Your task to perform on an android device: Open Reddit.com Image 0: 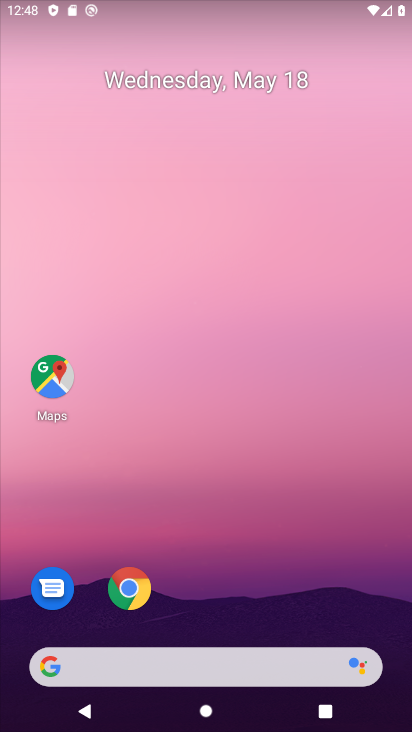
Step 0: drag from (363, 575) to (366, 114)
Your task to perform on an android device: Open Reddit.com Image 1: 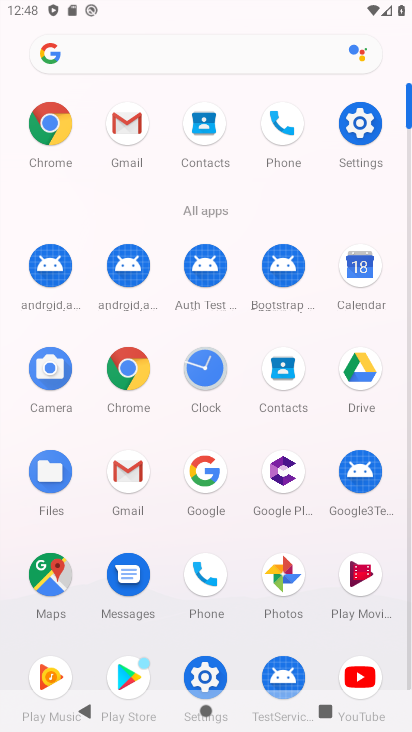
Step 1: click (118, 381)
Your task to perform on an android device: Open Reddit.com Image 2: 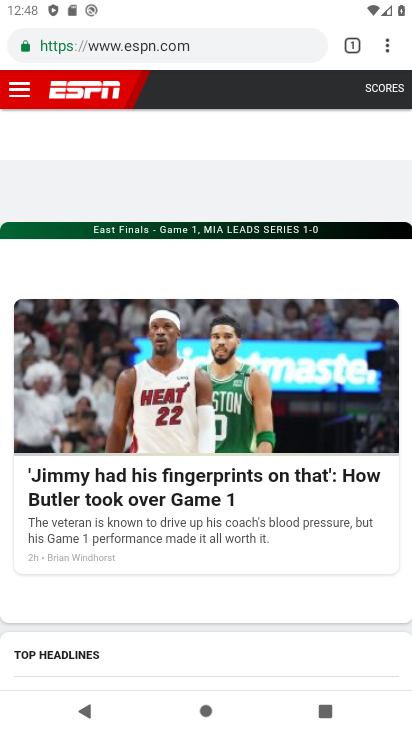
Step 2: press back button
Your task to perform on an android device: Open Reddit.com Image 3: 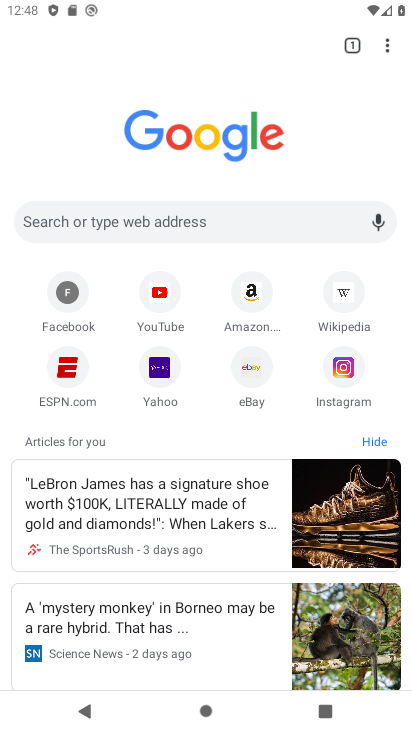
Step 3: click (233, 232)
Your task to perform on an android device: Open Reddit.com Image 4: 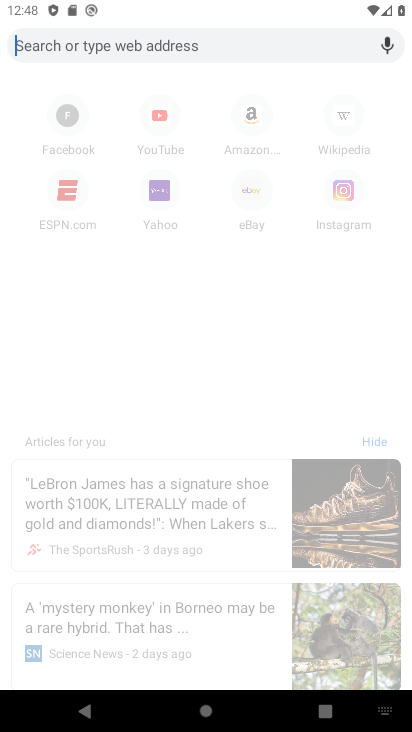
Step 4: type "reddit.com"
Your task to perform on an android device: Open Reddit.com Image 5: 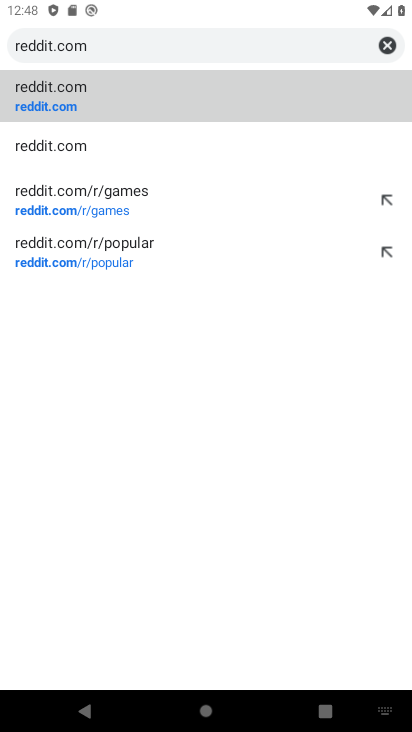
Step 5: click (75, 95)
Your task to perform on an android device: Open Reddit.com Image 6: 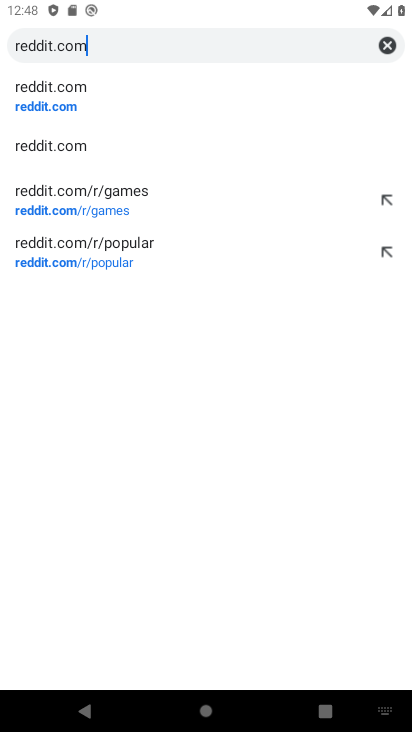
Step 6: click (84, 99)
Your task to perform on an android device: Open Reddit.com Image 7: 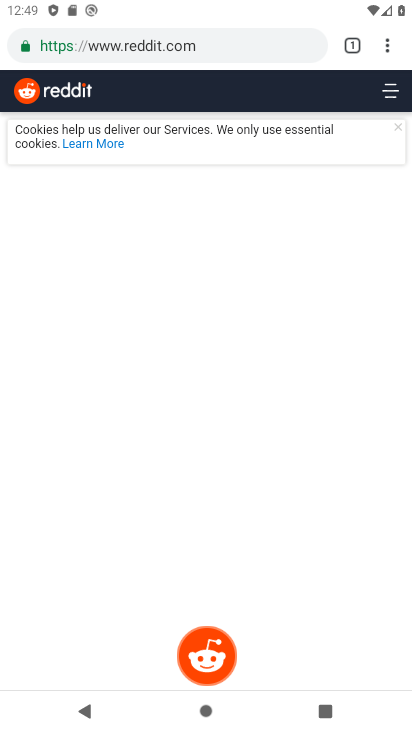
Step 7: task complete